Your task to perform on an android device: toggle location history Image 0: 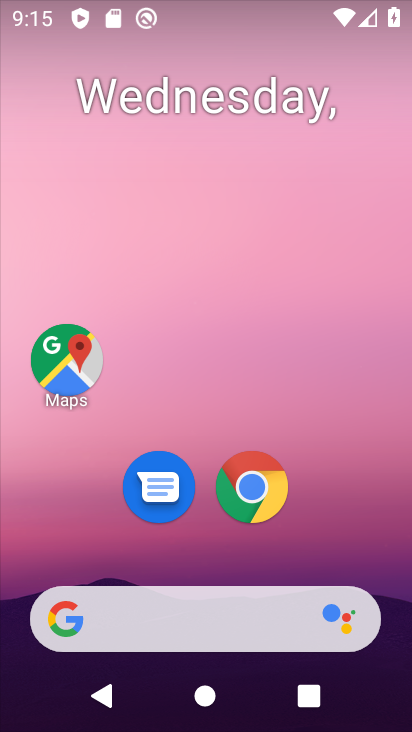
Step 0: drag from (210, 554) to (181, 102)
Your task to perform on an android device: toggle location history Image 1: 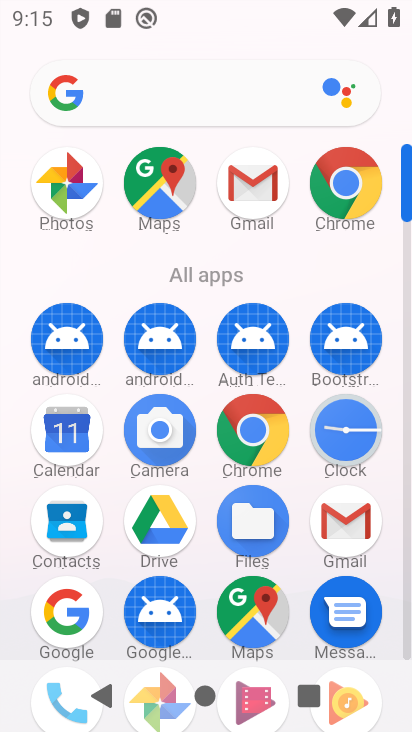
Step 1: drag from (198, 535) to (244, 205)
Your task to perform on an android device: toggle location history Image 2: 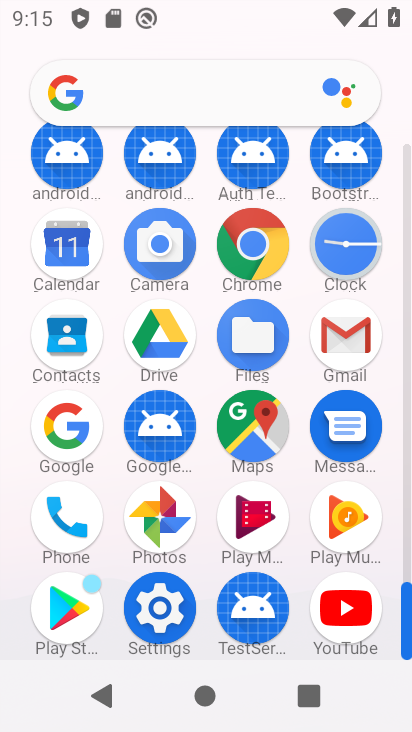
Step 2: click (163, 589)
Your task to perform on an android device: toggle location history Image 3: 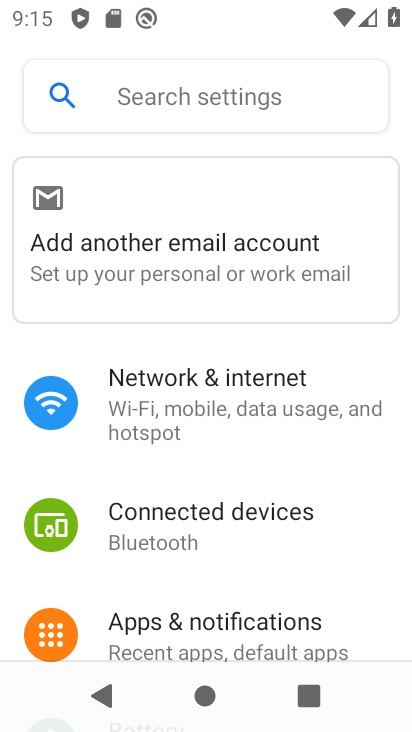
Step 3: drag from (245, 628) to (376, 267)
Your task to perform on an android device: toggle location history Image 4: 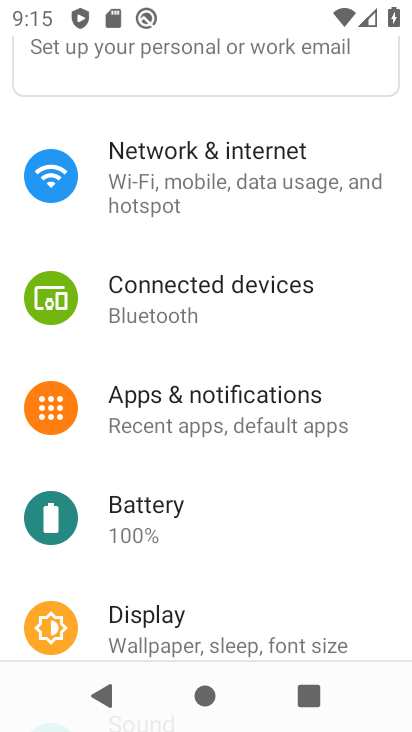
Step 4: drag from (242, 547) to (201, 235)
Your task to perform on an android device: toggle location history Image 5: 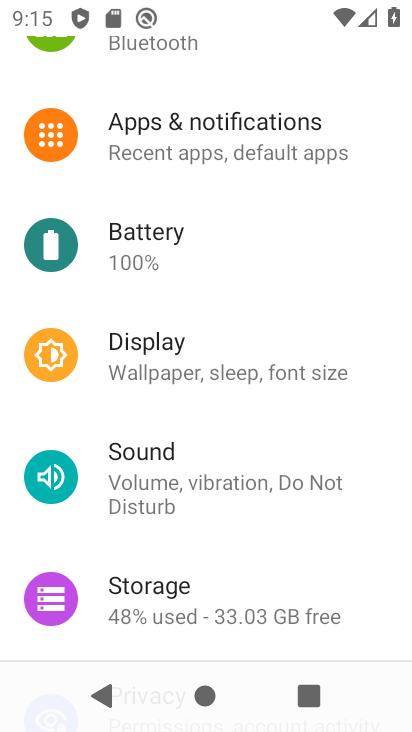
Step 5: drag from (184, 570) to (213, 323)
Your task to perform on an android device: toggle location history Image 6: 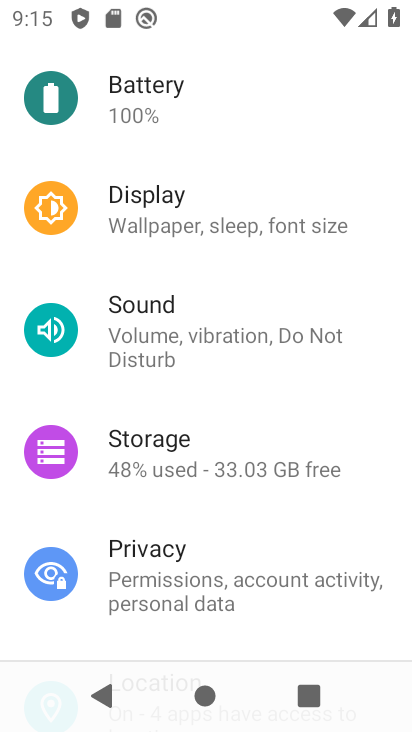
Step 6: drag from (214, 544) to (244, 241)
Your task to perform on an android device: toggle location history Image 7: 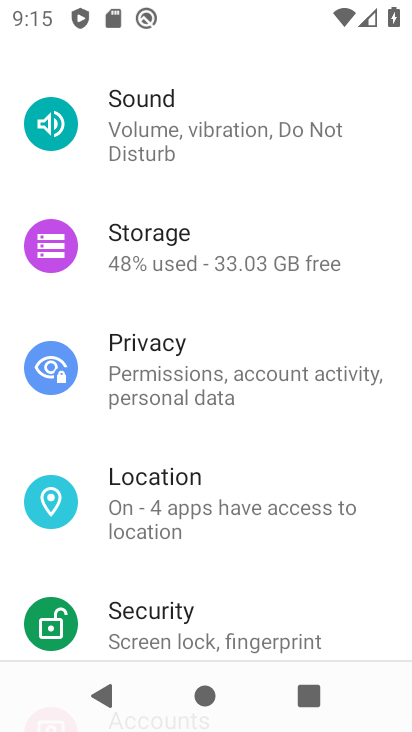
Step 7: click (191, 509)
Your task to perform on an android device: toggle location history Image 8: 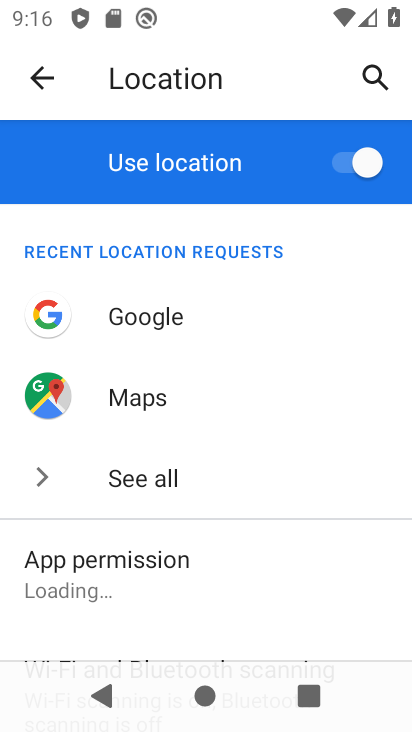
Step 8: drag from (218, 569) to (237, 235)
Your task to perform on an android device: toggle location history Image 9: 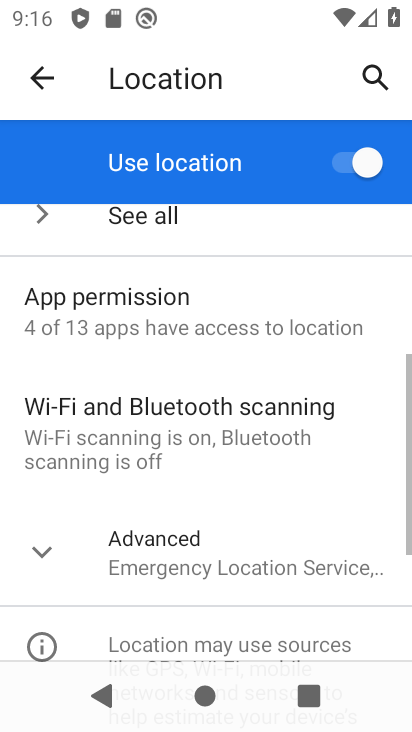
Step 9: click (234, 559)
Your task to perform on an android device: toggle location history Image 10: 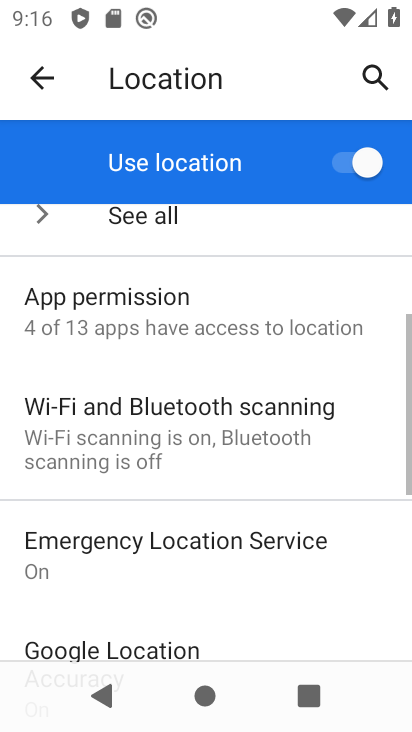
Step 10: drag from (254, 533) to (274, 305)
Your task to perform on an android device: toggle location history Image 11: 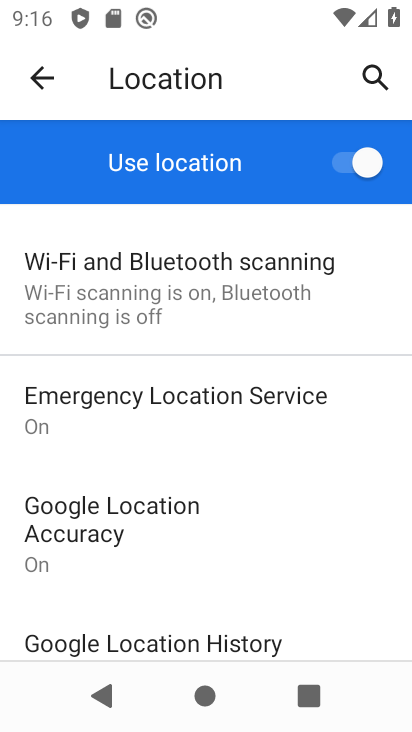
Step 11: drag from (208, 595) to (219, 447)
Your task to perform on an android device: toggle location history Image 12: 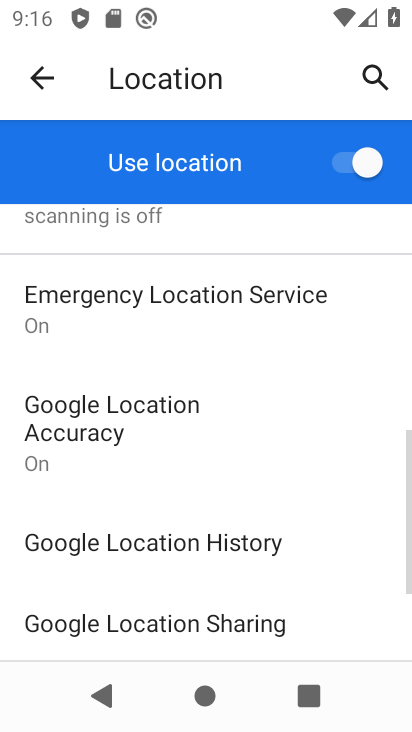
Step 12: click (219, 544)
Your task to perform on an android device: toggle location history Image 13: 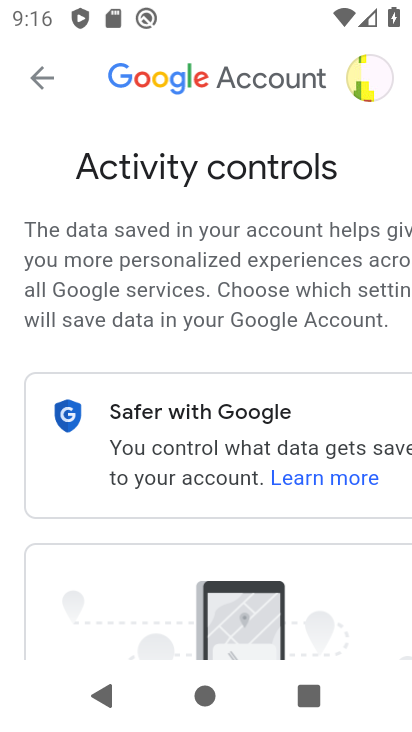
Step 13: drag from (293, 535) to (340, 193)
Your task to perform on an android device: toggle location history Image 14: 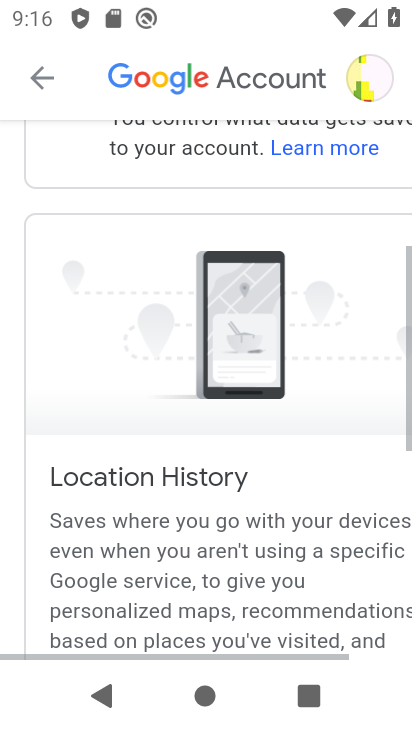
Step 14: drag from (303, 533) to (354, 185)
Your task to perform on an android device: toggle location history Image 15: 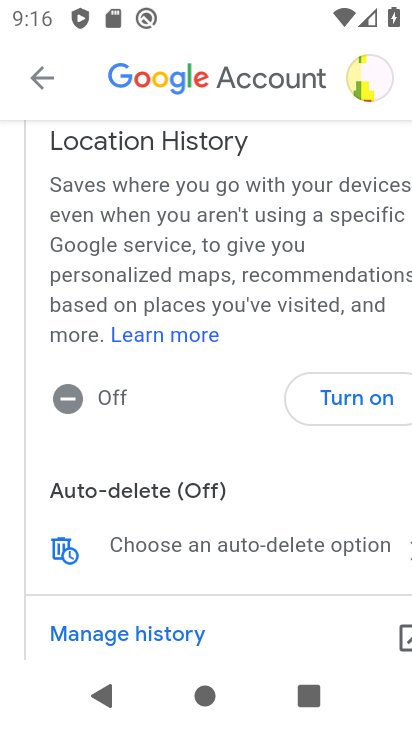
Step 15: click (336, 408)
Your task to perform on an android device: toggle location history Image 16: 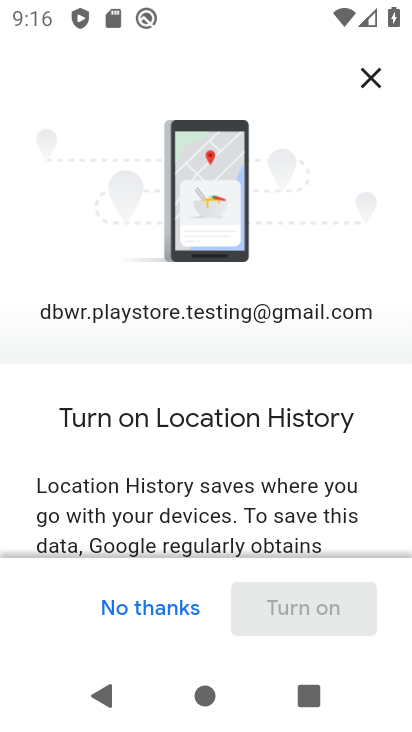
Step 16: drag from (301, 499) to (275, 161)
Your task to perform on an android device: toggle location history Image 17: 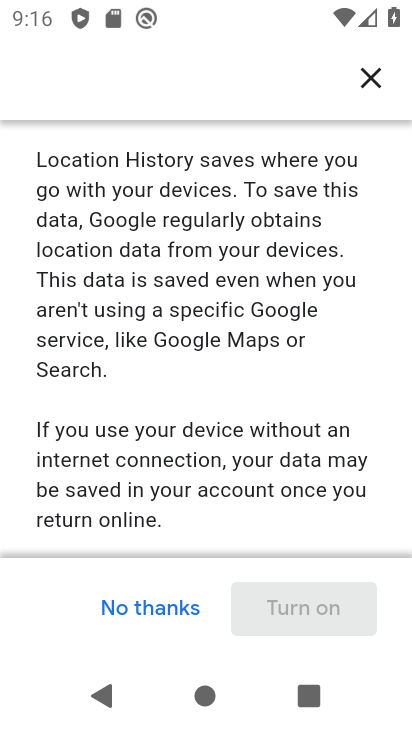
Step 17: drag from (267, 468) to (275, 212)
Your task to perform on an android device: toggle location history Image 18: 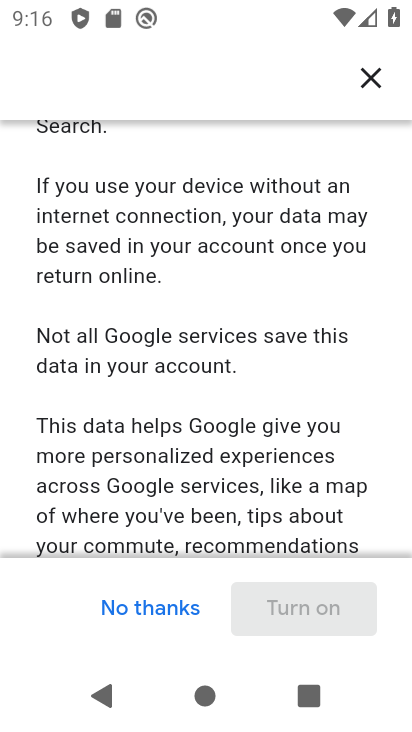
Step 18: drag from (258, 552) to (241, 313)
Your task to perform on an android device: toggle location history Image 19: 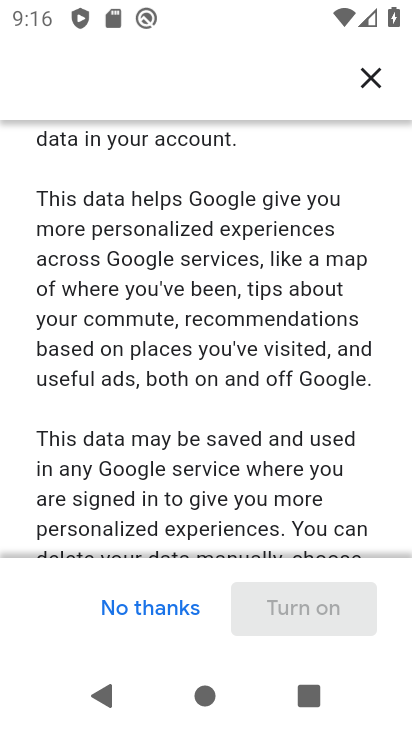
Step 19: drag from (260, 495) to (260, 271)
Your task to perform on an android device: toggle location history Image 20: 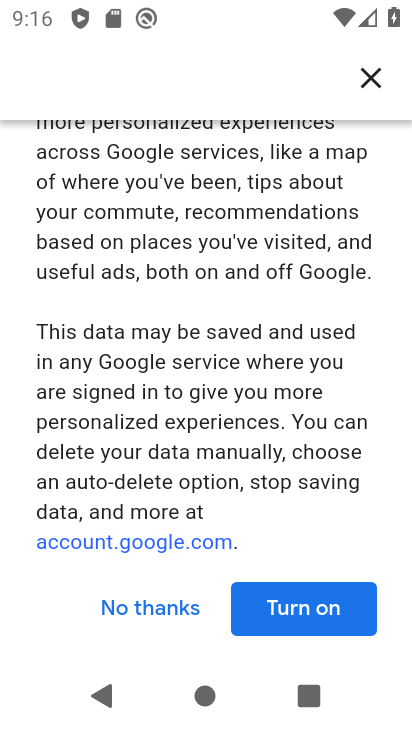
Step 20: click (269, 600)
Your task to perform on an android device: toggle location history Image 21: 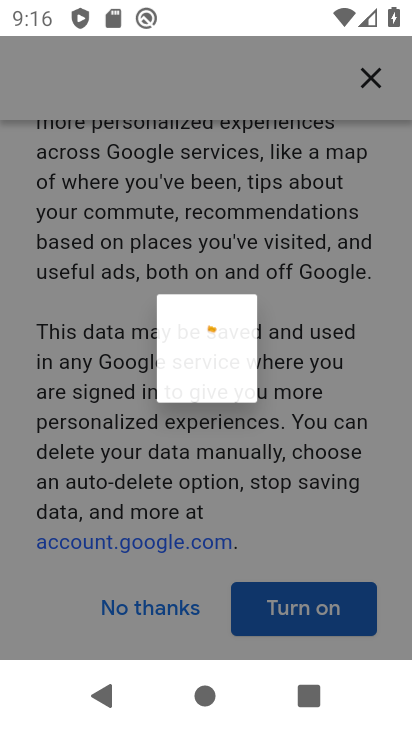
Step 21: click (285, 599)
Your task to perform on an android device: toggle location history Image 22: 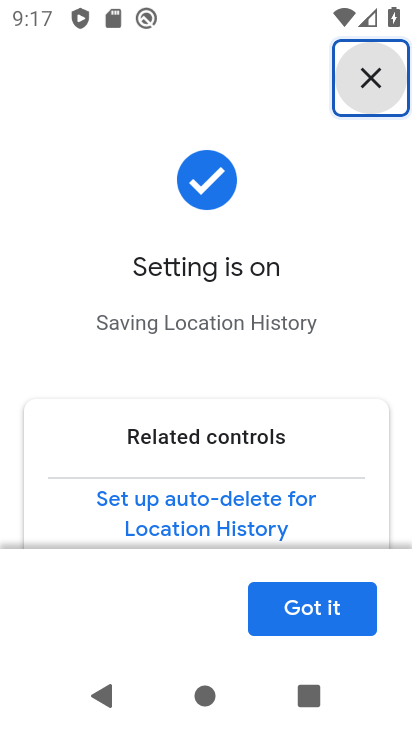
Step 22: task complete